Your task to perform on an android device: turn on wifi Image 0: 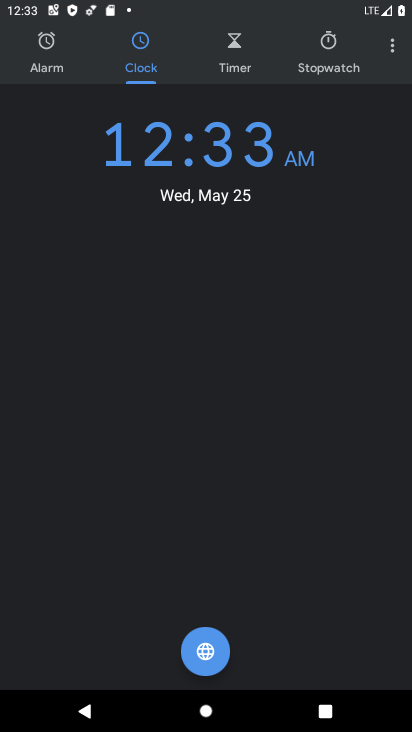
Step 0: press back button
Your task to perform on an android device: turn on wifi Image 1: 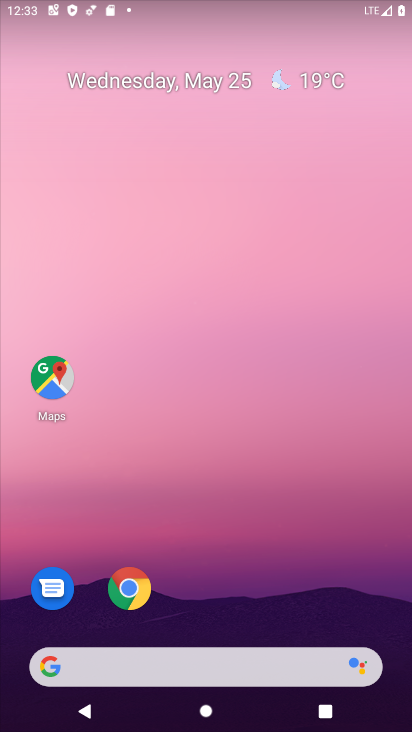
Step 1: drag from (190, 642) to (269, 164)
Your task to perform on an android device: turn on wifi Image 2: 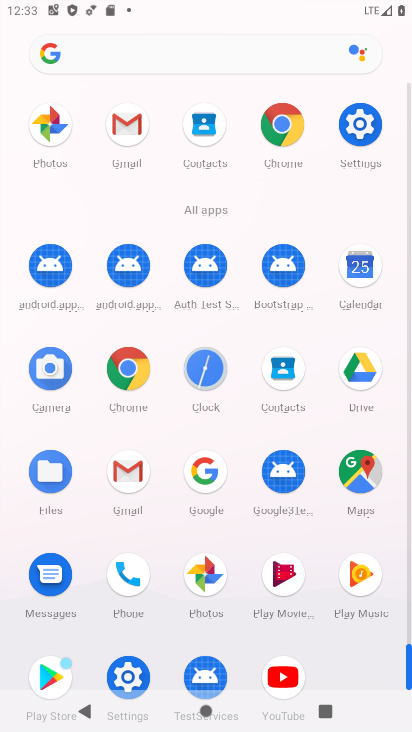
Step 2: click (119, 684)
Your task to perform on an android device: turn on wifi Image 3: 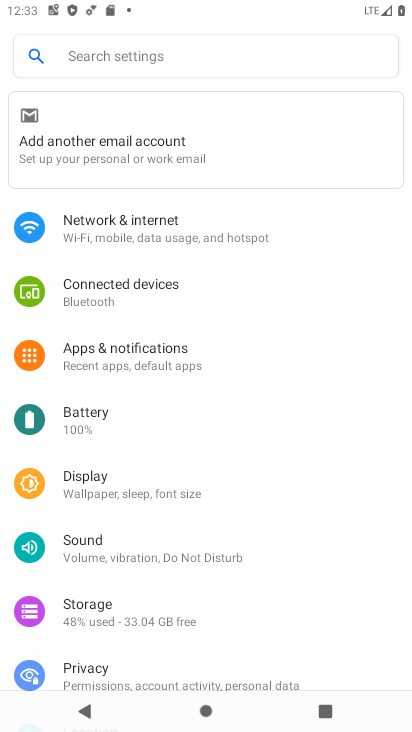
Step 3: click (127, 238)
Your task to perform on an android device: turn on wifi Image 4: 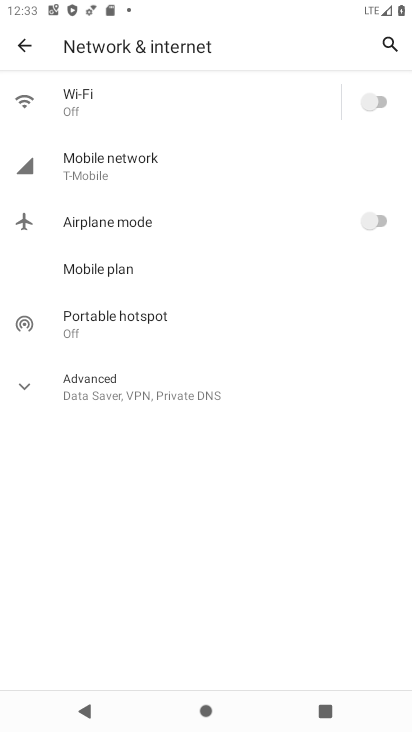
Step 4: click (388, 96)
Your task to perform on an android device: turn on wifi Image 5: 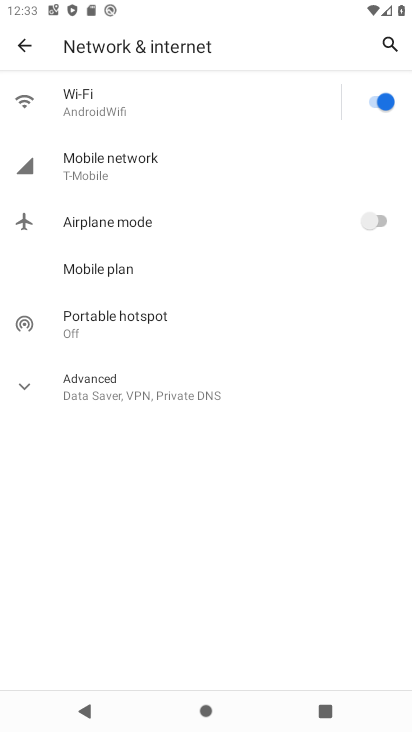
Step 5: task complete